Your task to perform on an android device: Clear the shopping cart on target.com. Add acer nitro to the cart on target.com Image 0: 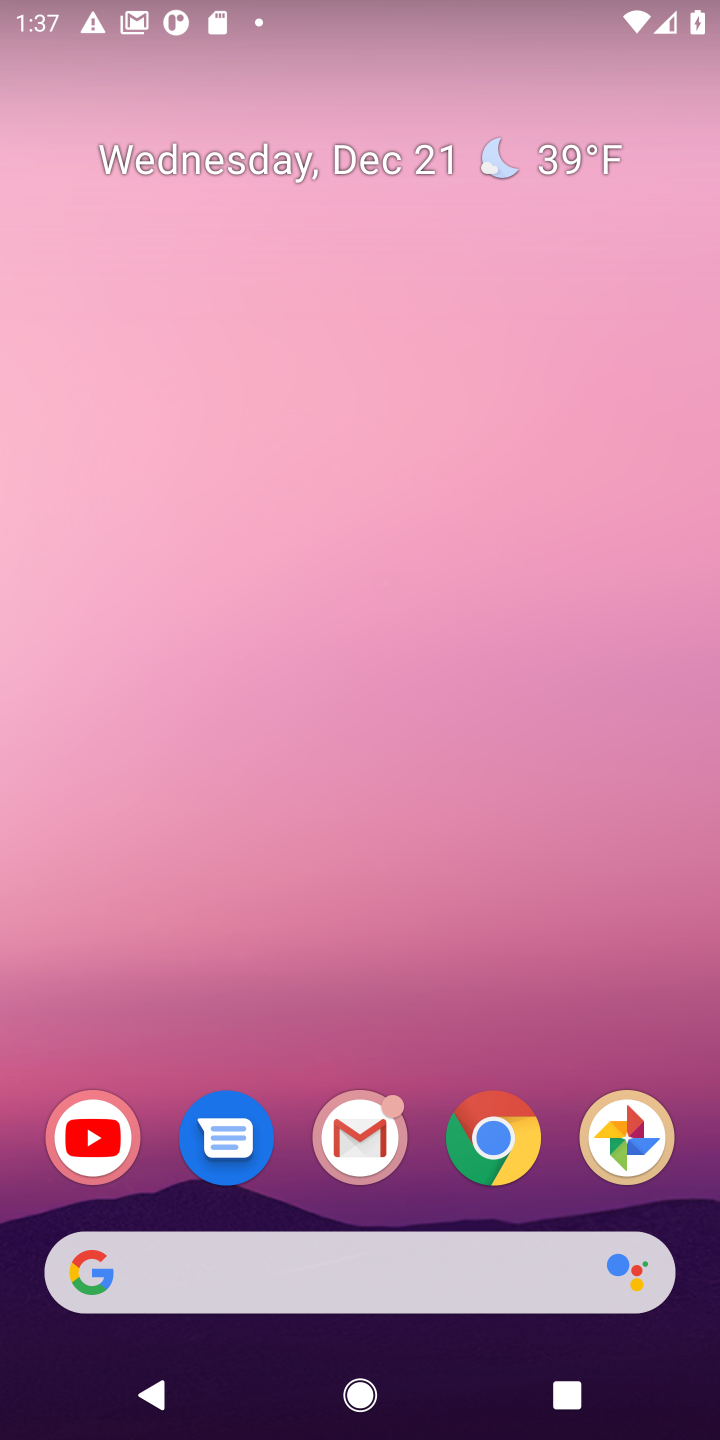
Step 0: task complete